Your task to perform on an android device: turn on translation in the chrome app Image 0: 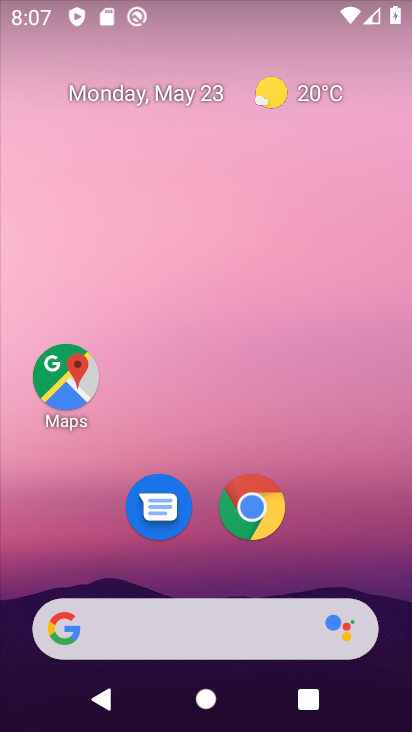
Step 0: click (259, 510)
Your task to perform on an android device: turn on translation in the chrome app Image 1: 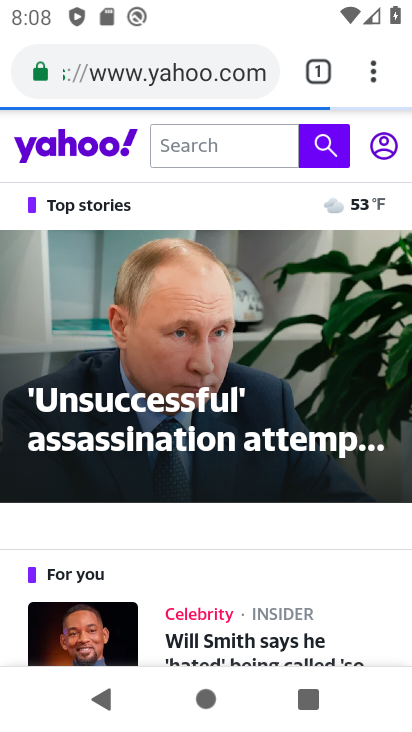
Step 1: click (375, 71)
Your task to perform on an android device: turn on translation in the chrome app Image 2: 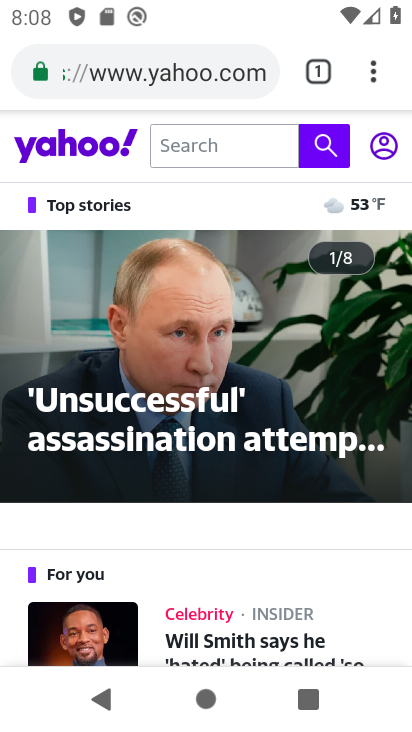
Step 2: drag from (375, 70) to (112, 512)
Your task to perform on an android device: turn on translation in the chrome app Image 3: 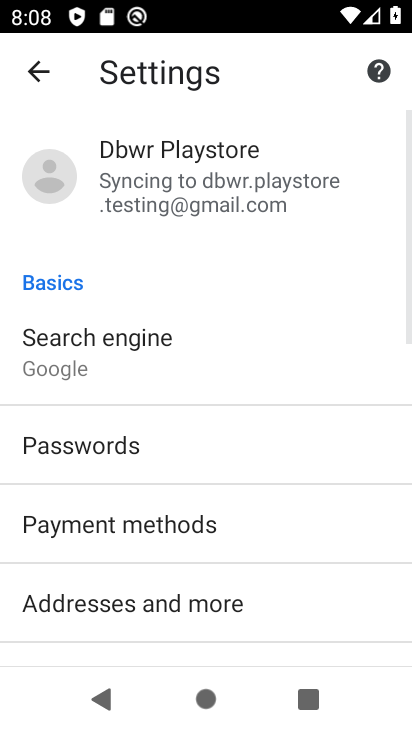
Step 3: drag from (262, 597) to (301, 154)
Your task to perform on an android device: turn on translation in the chrome app Image 4: 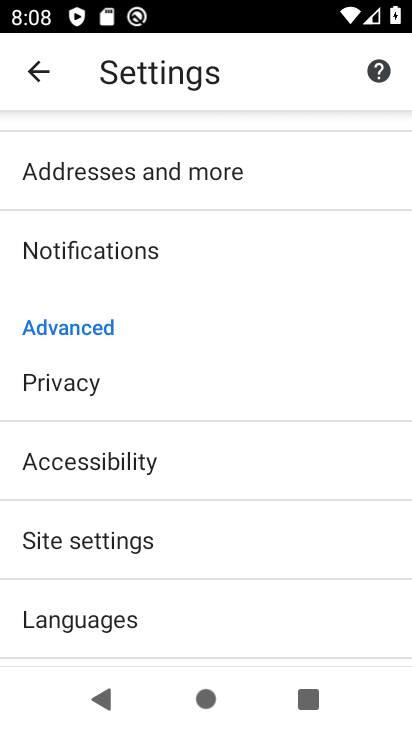
Step 4: drag from (229, 545) to (289, 195)
Your task to perform on an android device: turn on translation in the chrome app Image 5: 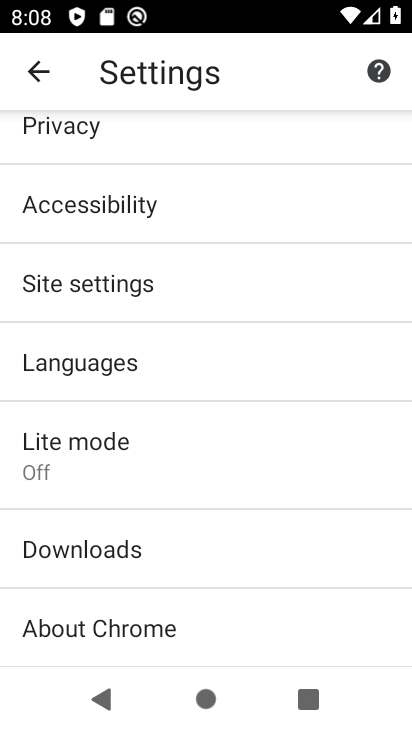
Step 5: click (91, 360)
Your task to perform on an android device: turn on translation in the chrome app Image 6: 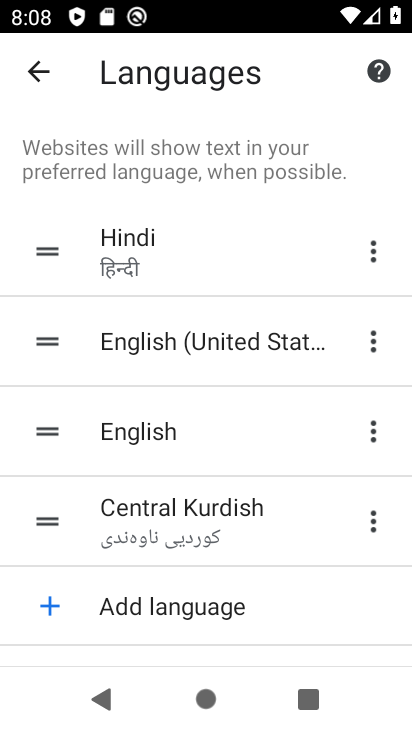
Step 6: drag from (263, 594) to (237, 296)
Your task to perform on an android device: turn on translation in the chrome app Image 7: 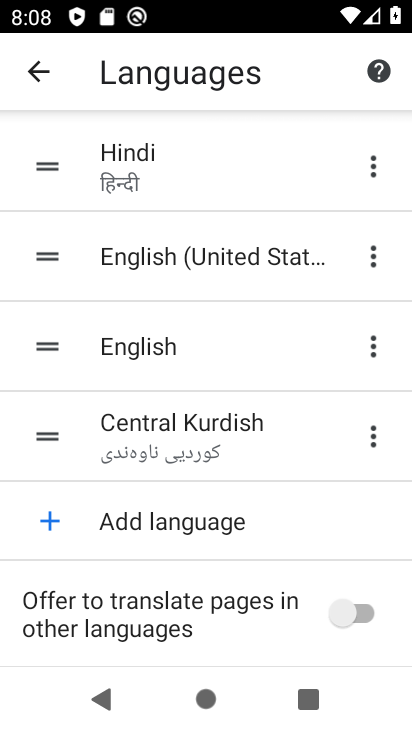
Step 7: click (356, 607)
Your task to perform on an android device: turn on translation in the chrome app Image 8: 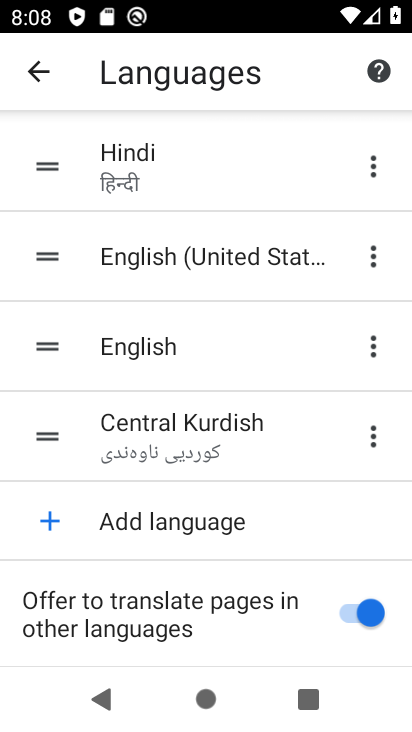
Step 8: task complete